Your task to perform on an android device: Open internet settings Image 0: 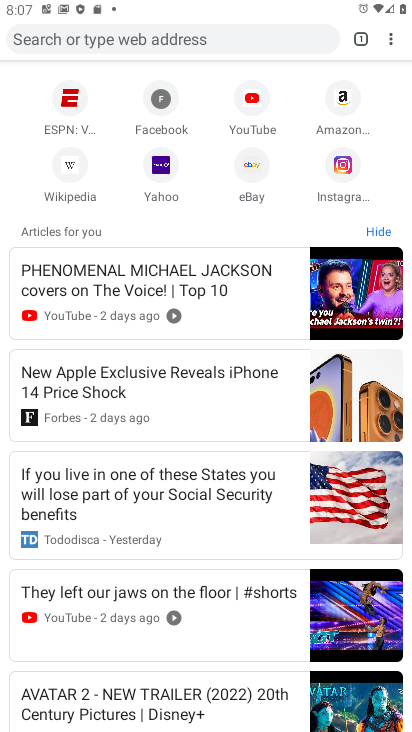
Step 0: press home button
Your task to perform on an android device: Open internet settings Image 1: 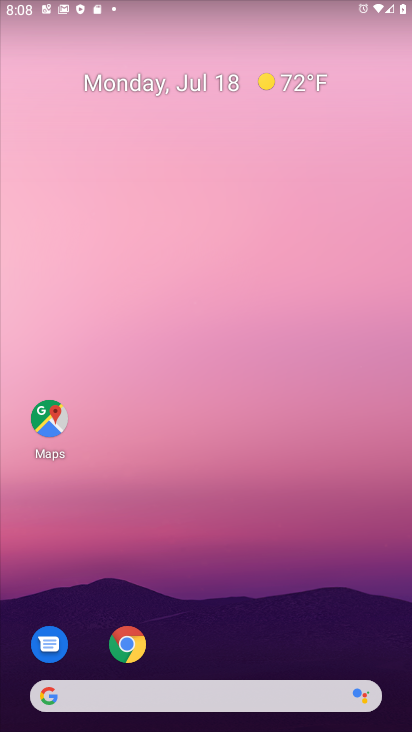
Step 1: drag from (344, 647) to (170, 37)
Your task to perform on an android device: Open internet settings Image 2: 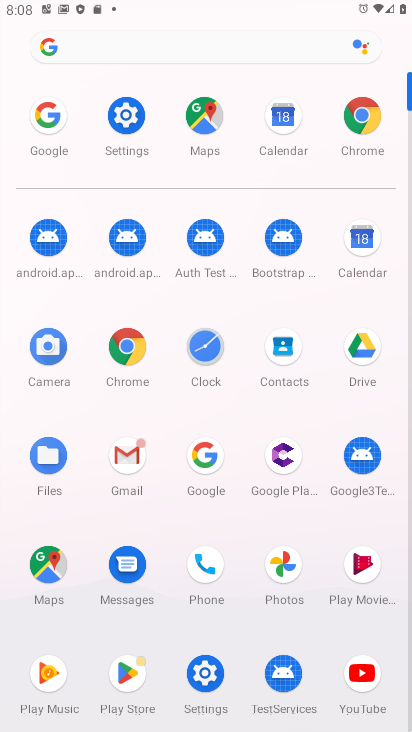
Step 2: click (111, 110)
Your task to perform on an android device: Open internet settings Image 3: 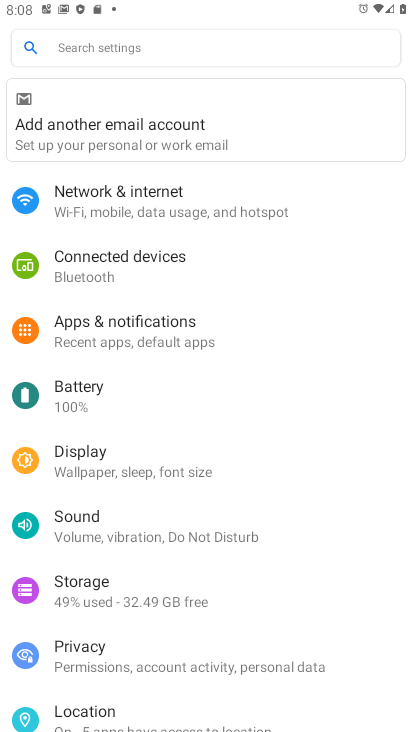
Step 3: click (148, 206)
Your task to perform on an android device: Open internet settings Image 4: 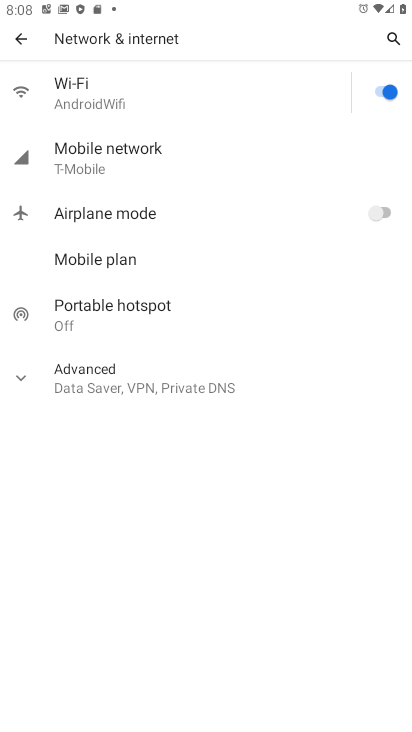
Step 4: task complete